Your task to perform on an android device: delete the emails in spam in the gmail app Image 0: 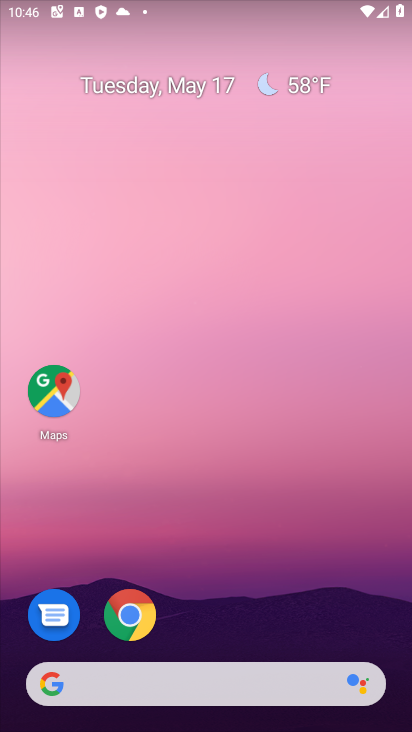
Step 0: drag from (371, 642) to (275, 112)
Your task to perform on an android device: delete the emails in spam in the gmail app Image 1: 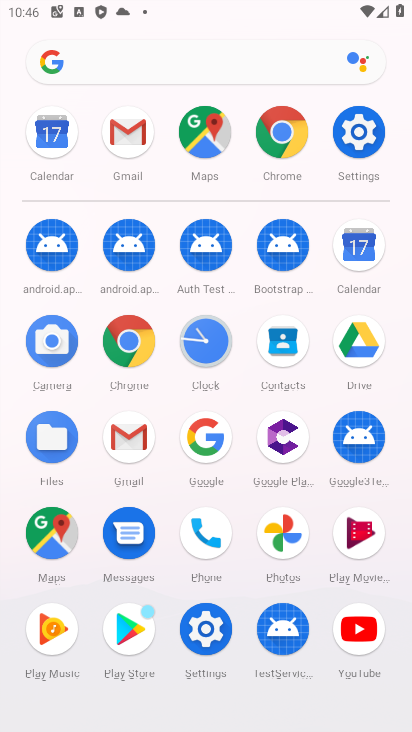
Step 1: click (124, 435)
Your task to perform on an android device: delete the emails in spam in the gmail app Image 2: 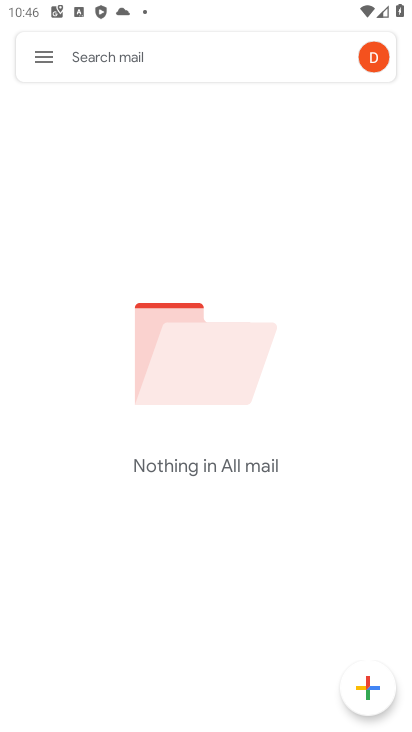
Step 2: click (42, 55)
Your task to perform on an android device: delete the emails in spam in the gmail app Image 3: 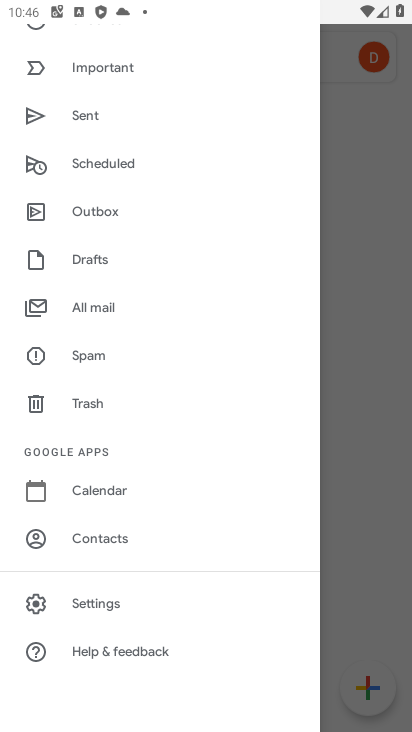
Step 3: click (97, 343)
Your task to perform on an android device: delete the emails in spam in the gmail app Image 4: 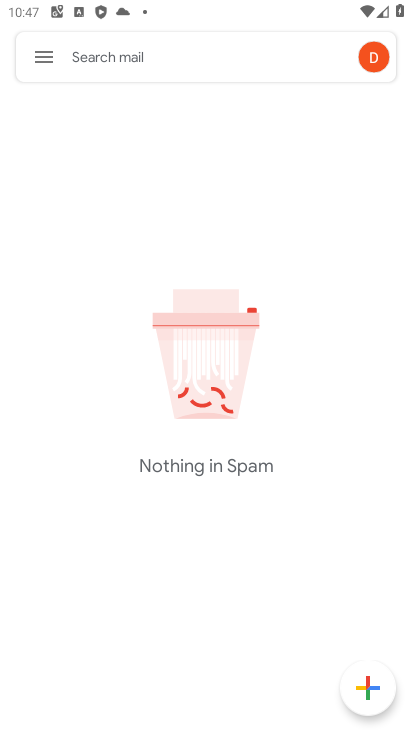
Step 4: task complete